Your task to perform on an android device: turn on the 24-hour format for clock Image 0: 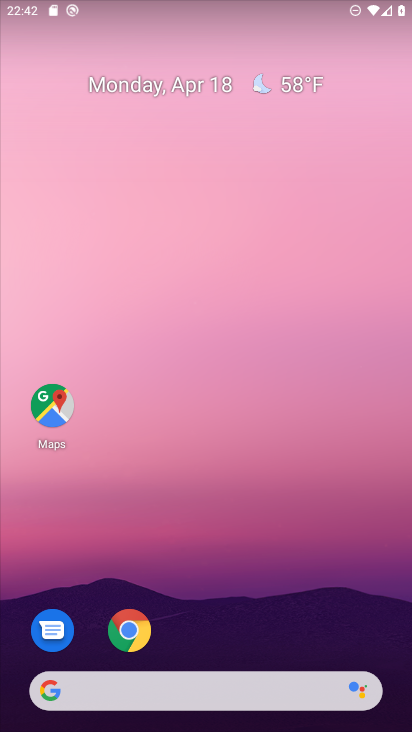
Step 0: drag from (216, 648) to (350, 20)
Your task to perform on an android device: turn on the 24-hour format for clock Image 1: 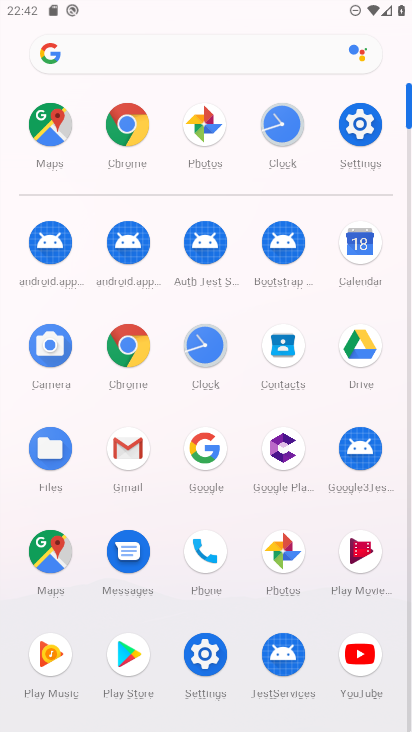
Step 1: click (203, 344)
Your task to perform on an android device: turn on the 24-hour format for clock Image 2: 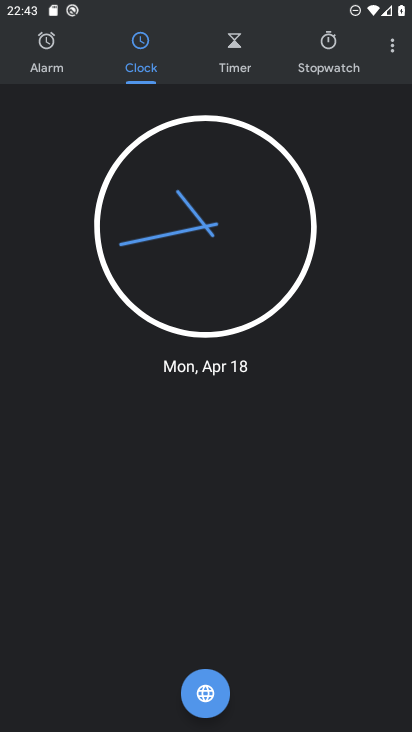
Step 2: click (390, 48)
Your task to perform on an android device: turn on the 24-hour format for clock Image 3: 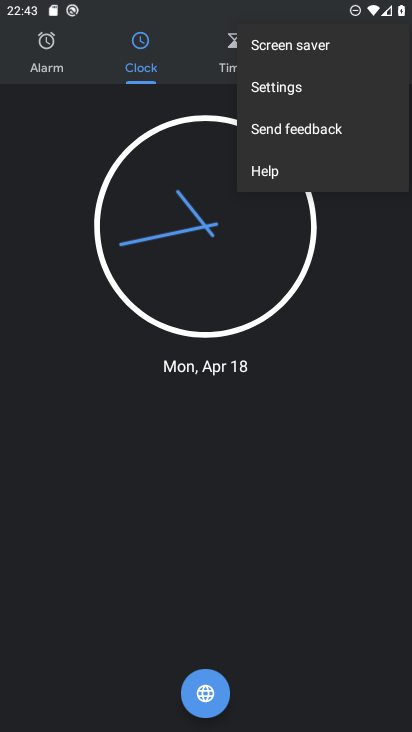
Step 3: click (301, 90)
Your task to perform on an android device: turn on the 24-hour format for clock Image 4: 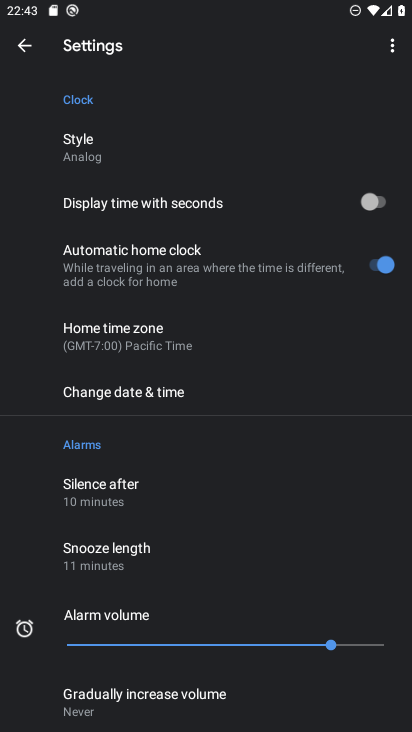
Step 4: click (172, 398)
Your task to perform on an android device: turn on the 24-hour format for clock Image 5: 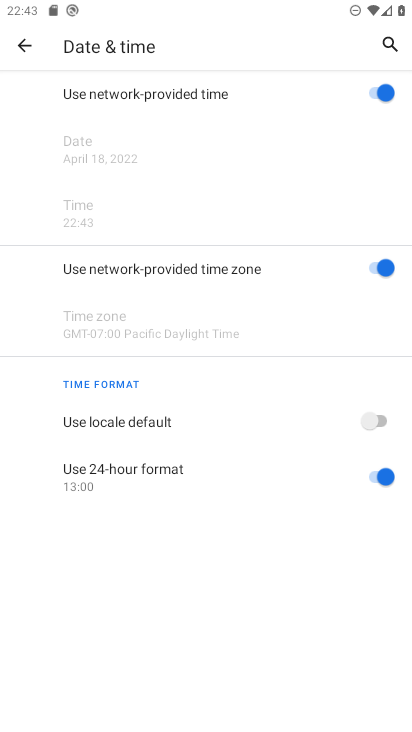
Step 5: task complete